Your task to perform on an android device: Open CNN.com Image 0: 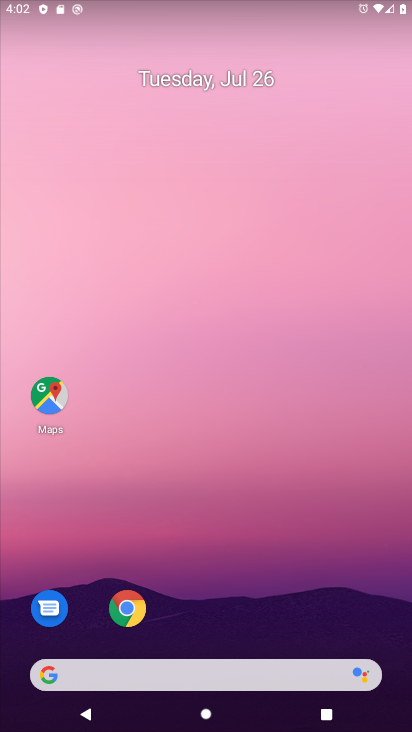
Step 0: click (121, 614)
Your task to perform on an android device: Open CNN.com Image 1: 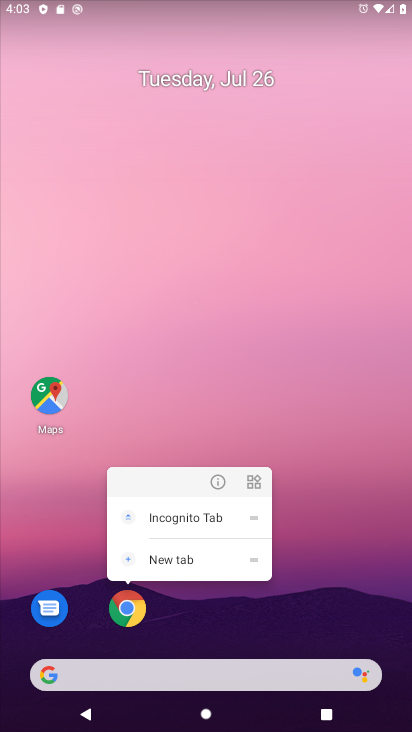
Step 1: click (127, 600)
Your task to perform on an android device: Open CNN.com Image 2: 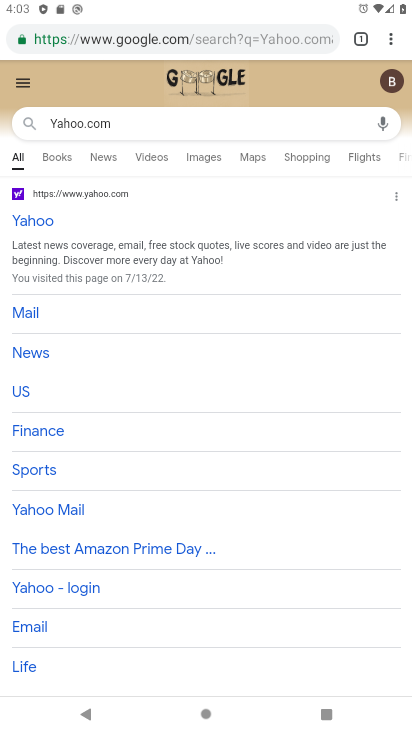
Step 2: click (312, 45)
Your task to perform on an android device: Open CNN.com Image 3: 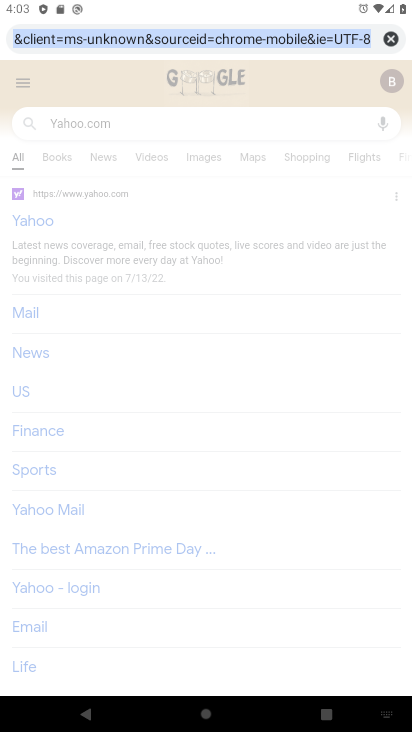
Step 3: click (383, 36)
Your task to perform on an android device: Open CNN.com Image 4: 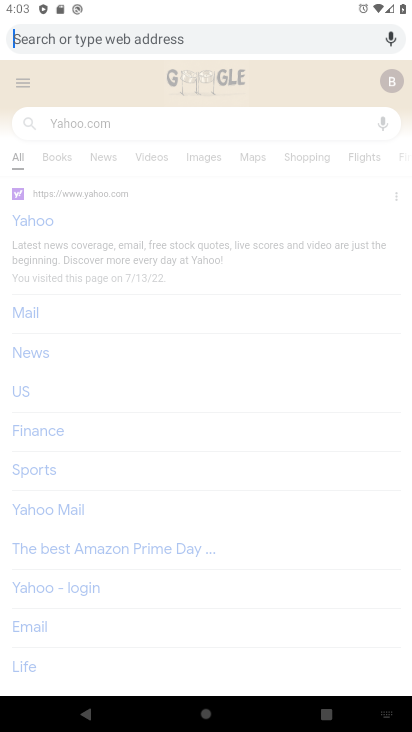
Step 4: type "CNN.com"
Your task to perform on an android device: Open CNN.com Image 5: 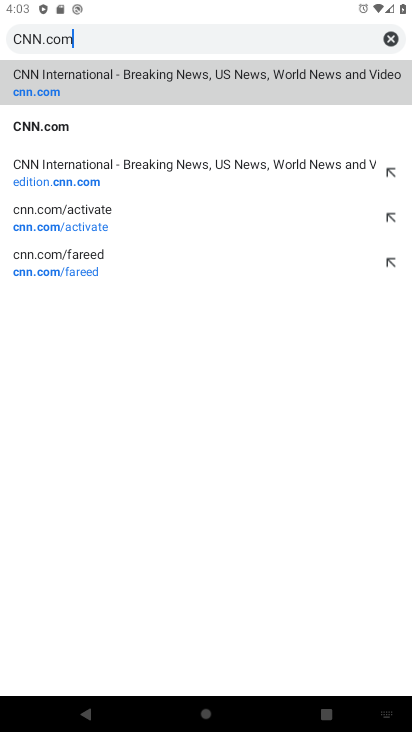
Step 5: click (40, 124)
Your task to perform on an android device: Open CNN.com Image 6: 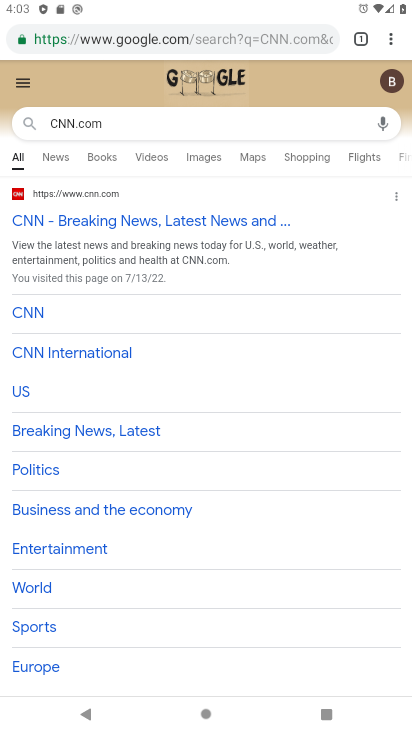
Step 6: task complete